Your task to perform on an android device: Go to location settings Image 0: 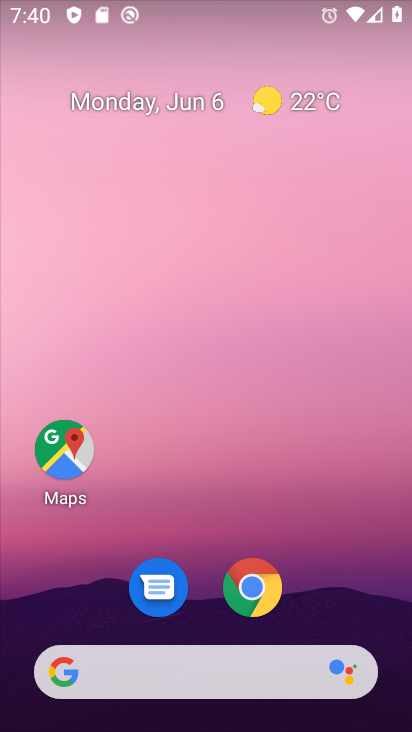
Step 0: drag from (330, 602) to (271, 126)
Your task to perform on an android device: Go to location settings Image 1: 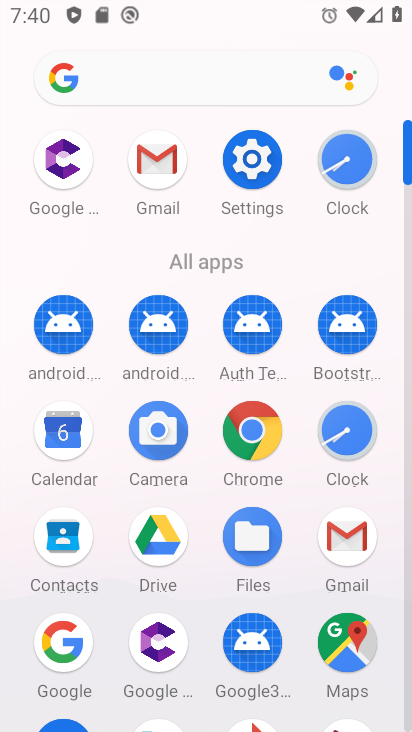
Step 1: click (253, 162)
Your task to perform on an android device: Go to location settings Image 2: 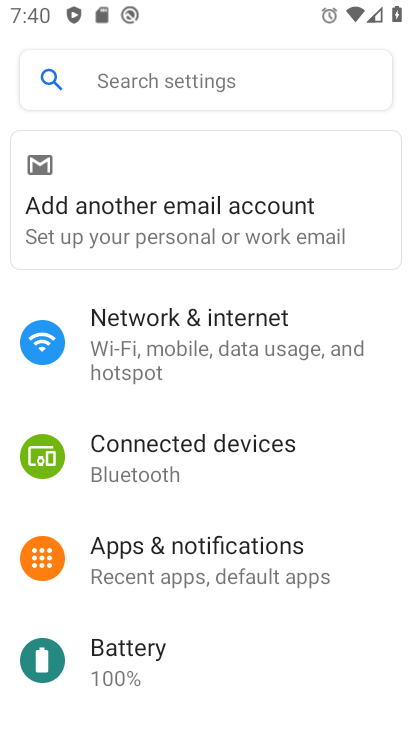
Step 2: drag from (305, 562) to (297, 74)
Your task to perform on an android device: Go to location settings Image 3: 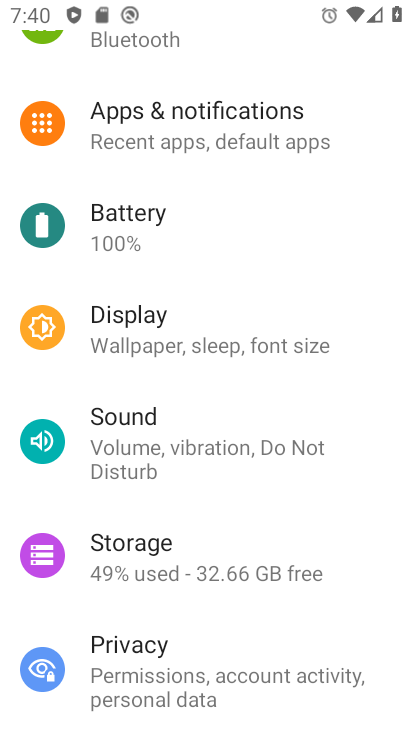
Step 3: drag from (246, 591) to (223, 208)
Your task to perform on an android device: Go to location settings Image 4: 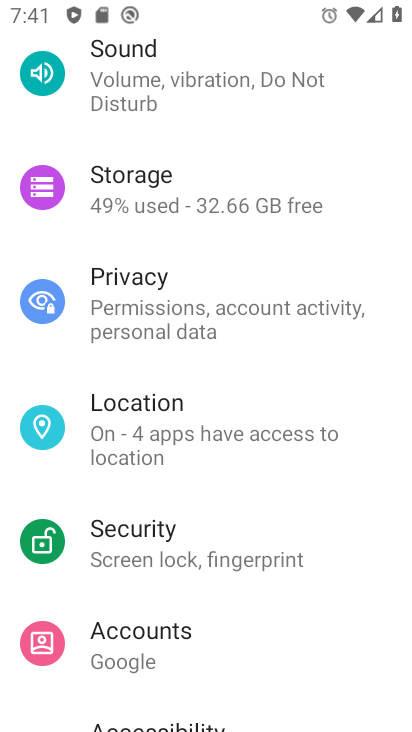
Step 4: click (104, 431)
Your task to perform on an android device: Go to location settings Image 5: 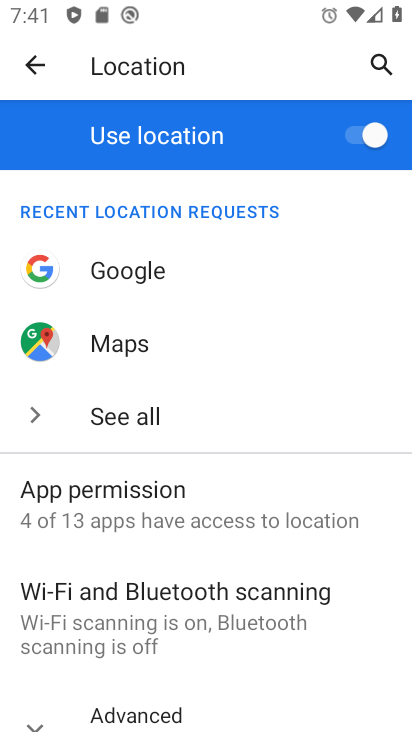
Step 5: task complete